Your task to perform on an android device: install app "ZOOM Cloud Meetings" Image 0: 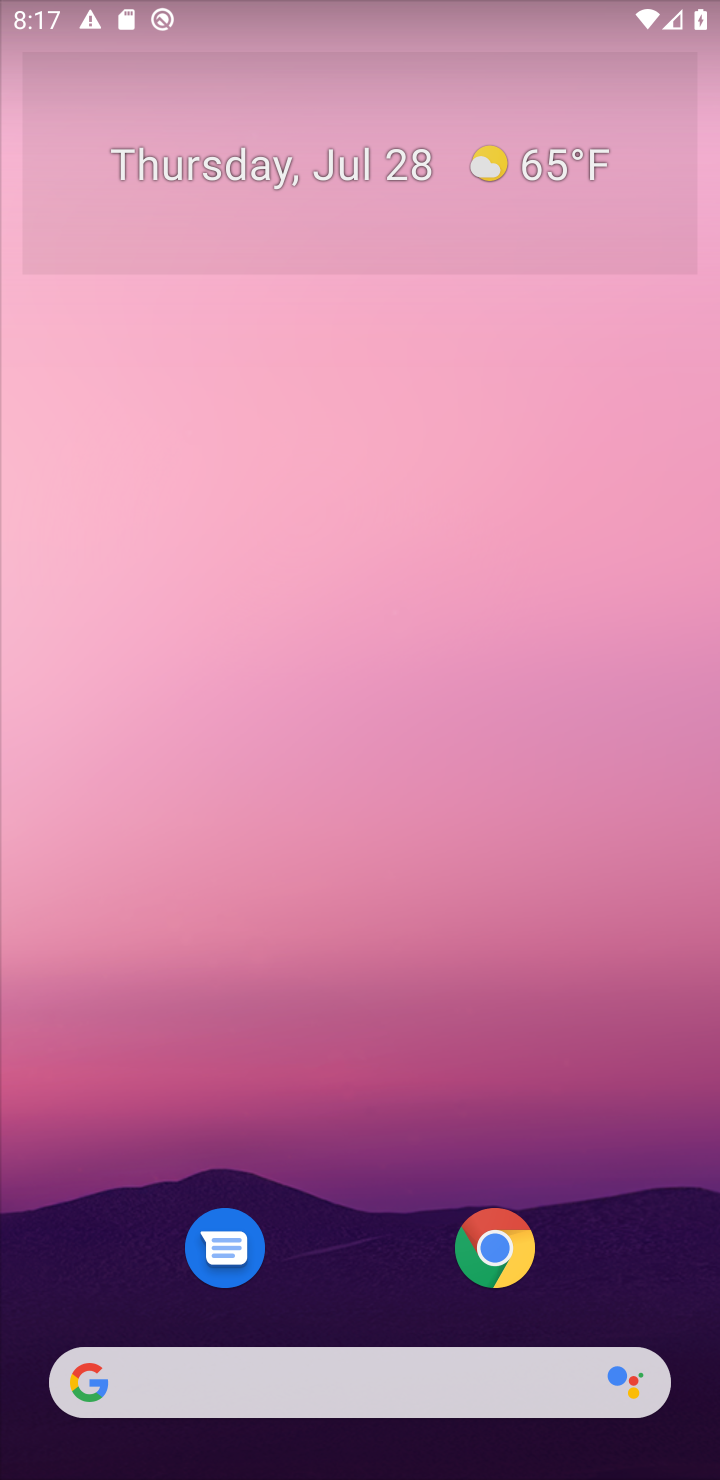
Step 0: drag from (335, 1286) to (232, 168)
Your task to perform on an android device: install app "ZOOM Cloud Meetings" Image 1: 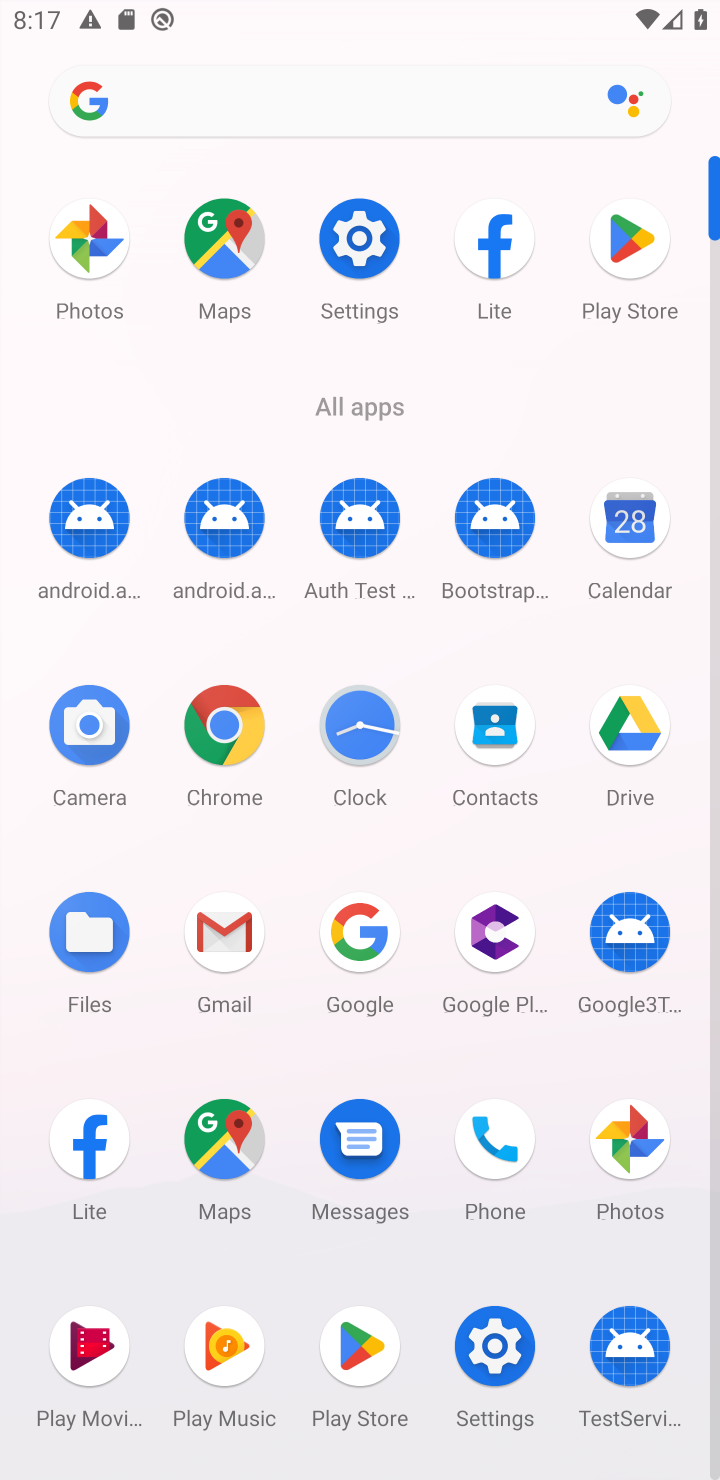
Step 1: click (616, 252)
Your task to perform on an android device: install app "ZOOM Cloud Meetings" Image 2: 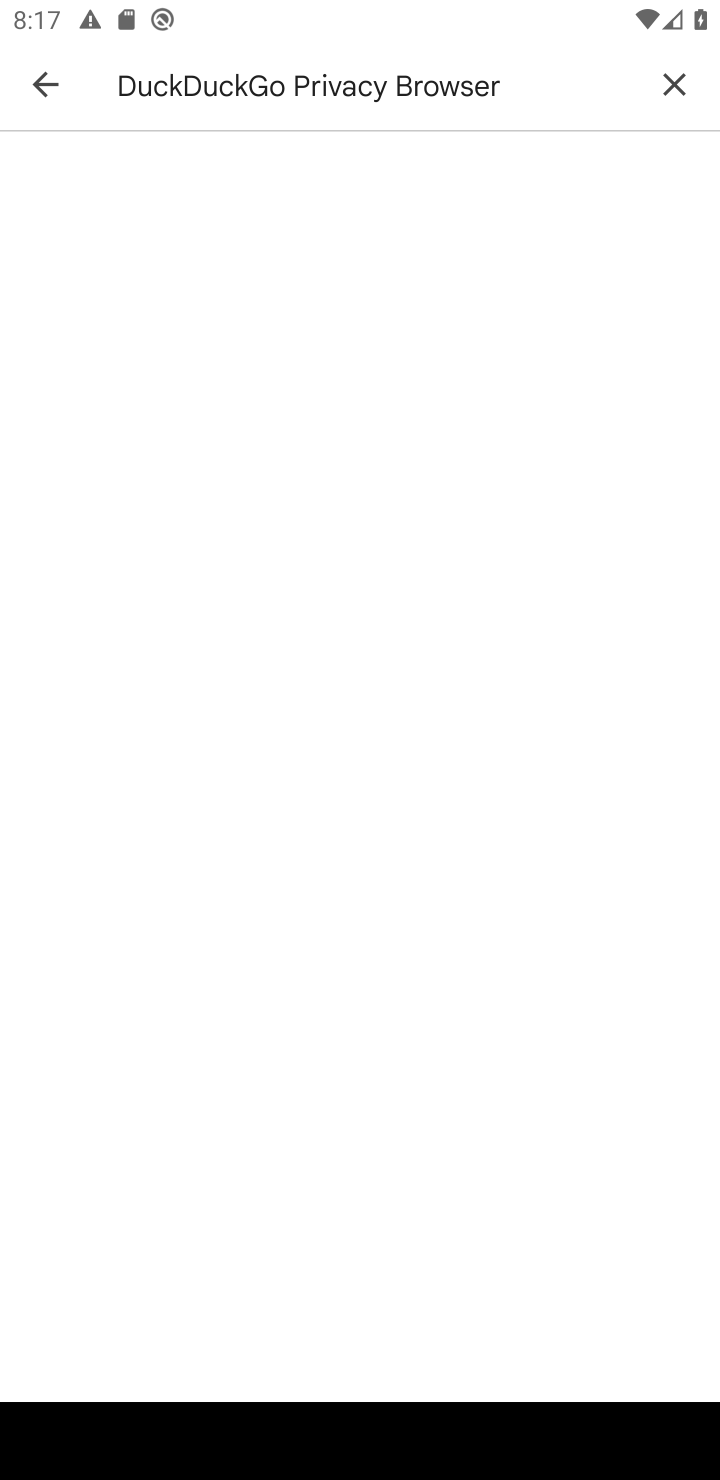
Step 2: click (684, 75)
Your task to perform on an android device: install app "ZOOM Cloud Meetings" Image 3: 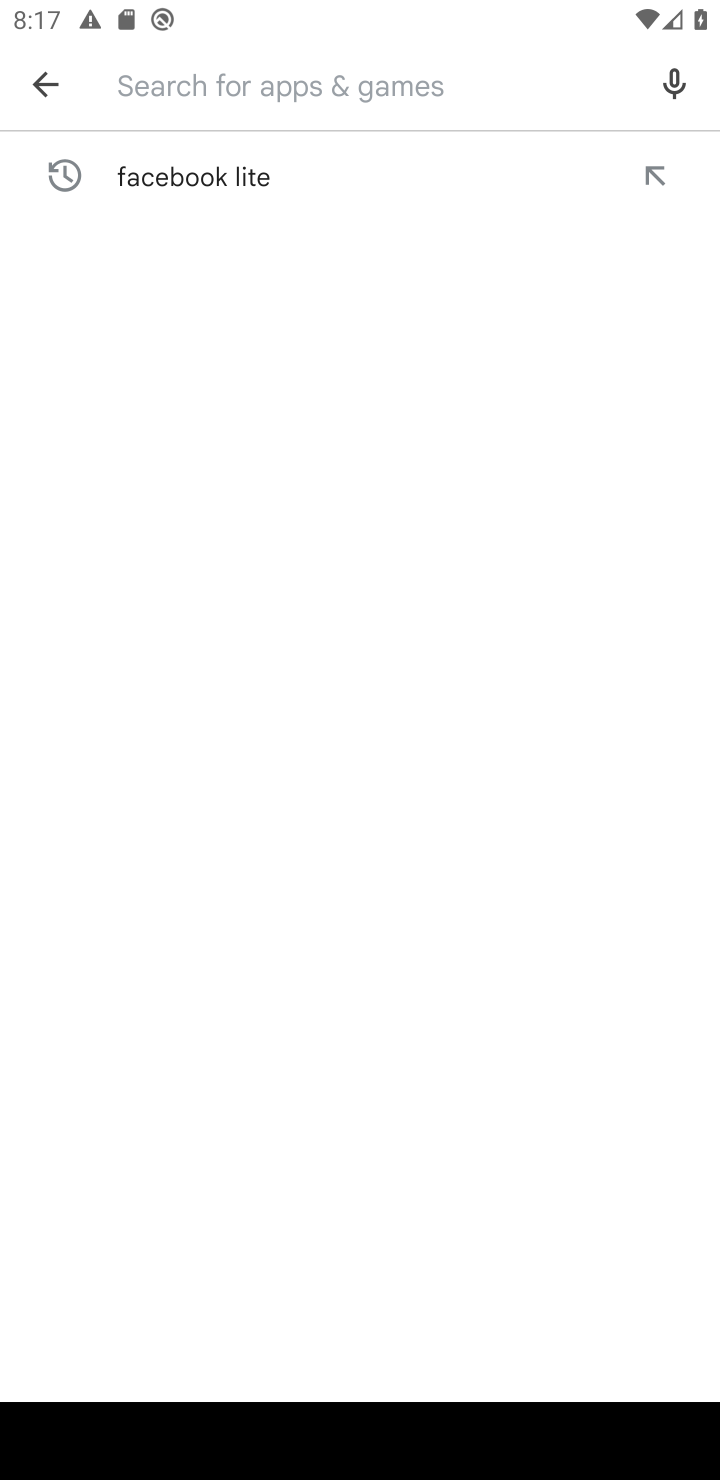
Step 3: click (684, 75)
Your task to perform on an android device: install app "ZOOM Cloud Meetings" Image 4: 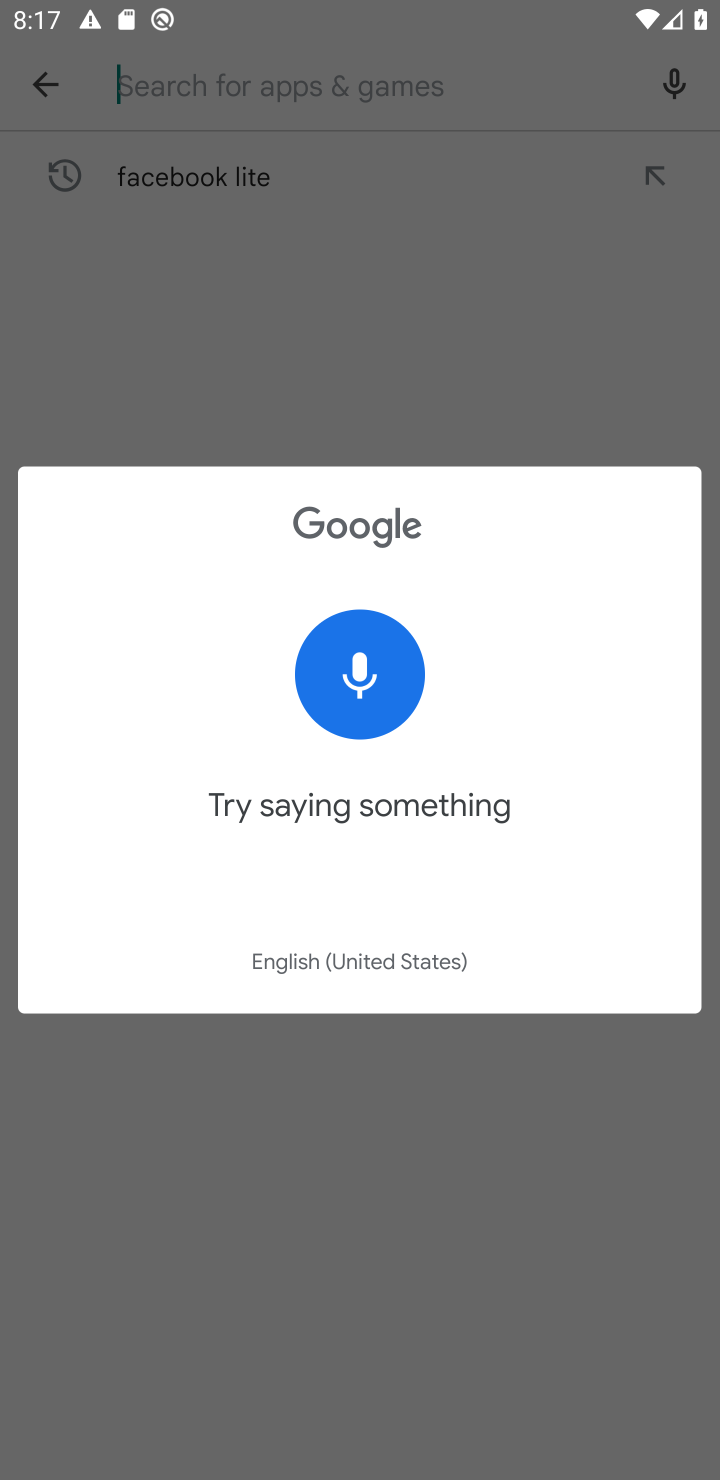
Step 4: click (359, 352)
Your task to perform on an android device: install app "ZOOM Cloud Meetings" Image 5: 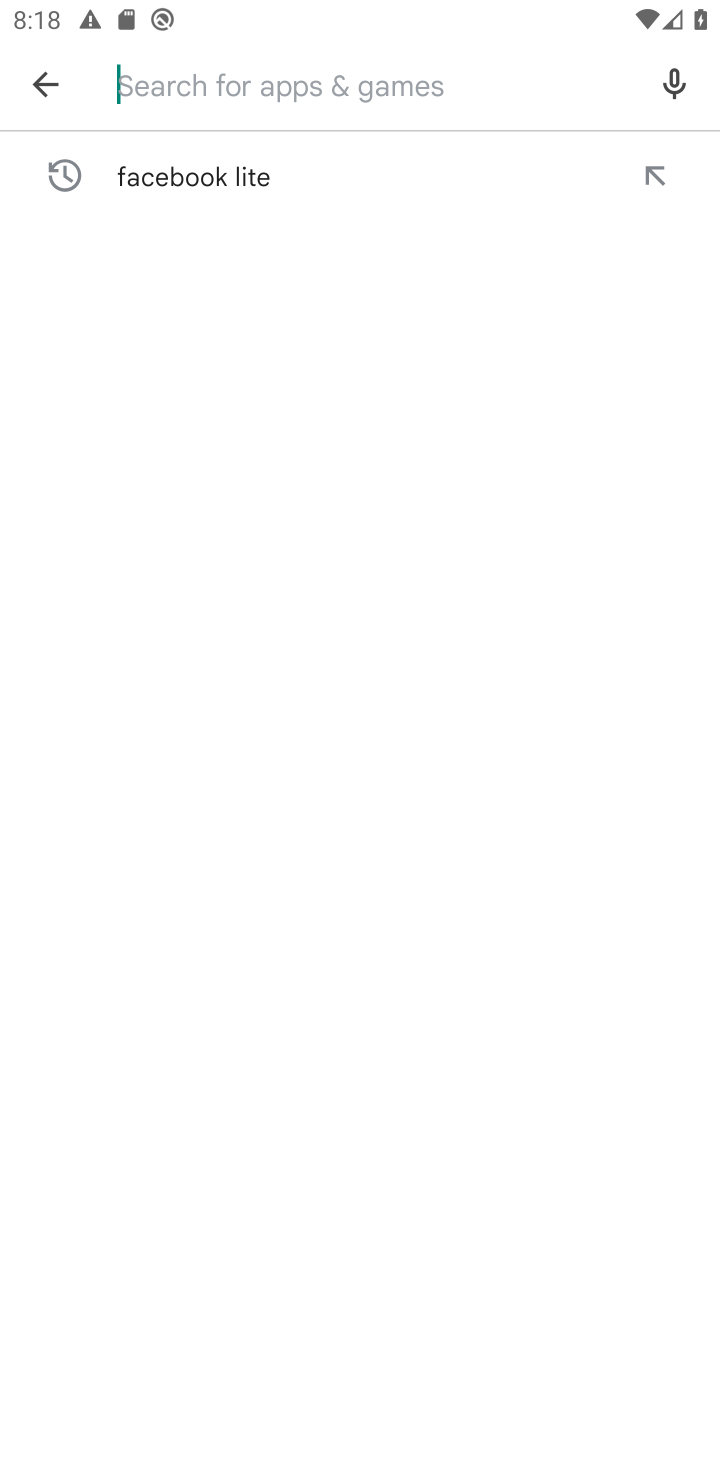
Step 5: type "zoom cloud meeting"
Your task to perform on an android device: install app "ZOOM Cloud Meetings" Image 6: 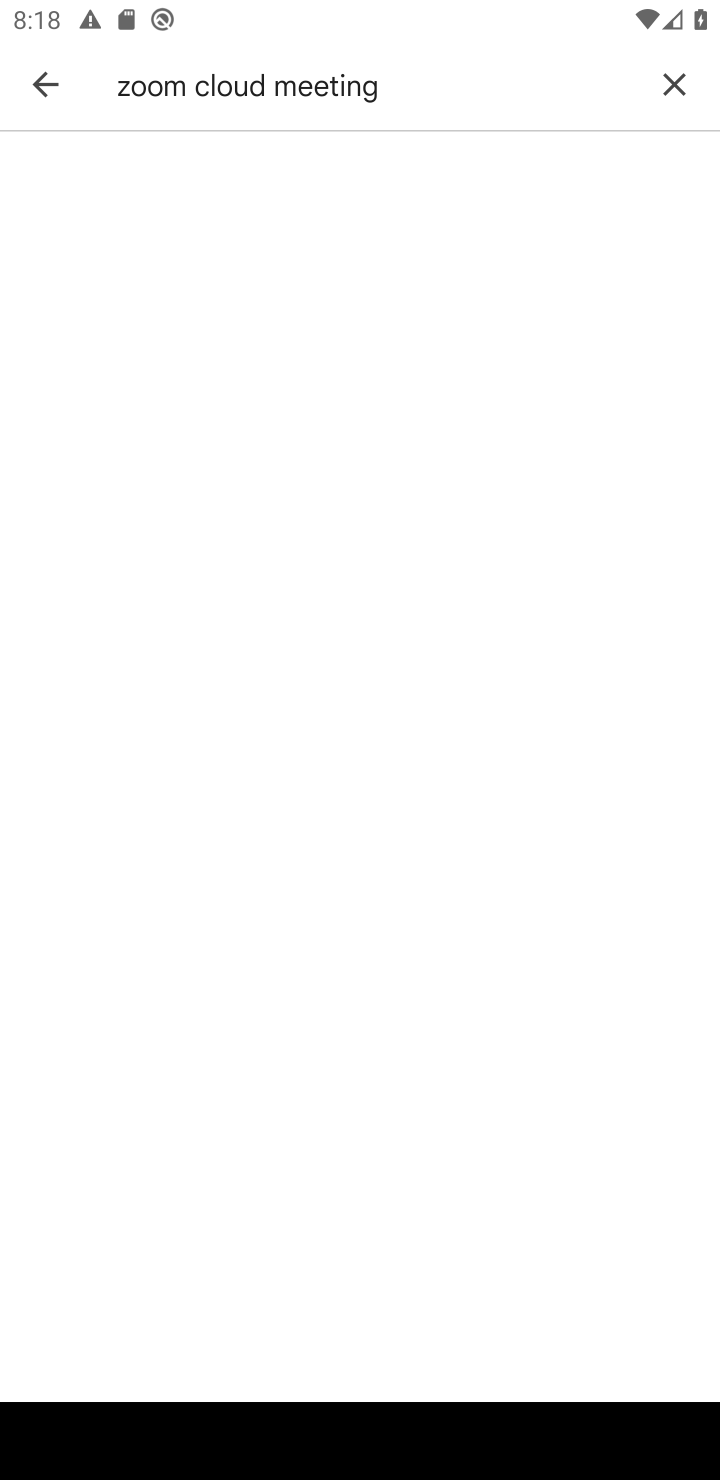
Step 6: type "s"
Your task to perform on an android device: install app "ZOOM Cloud Meetings" Image 7: 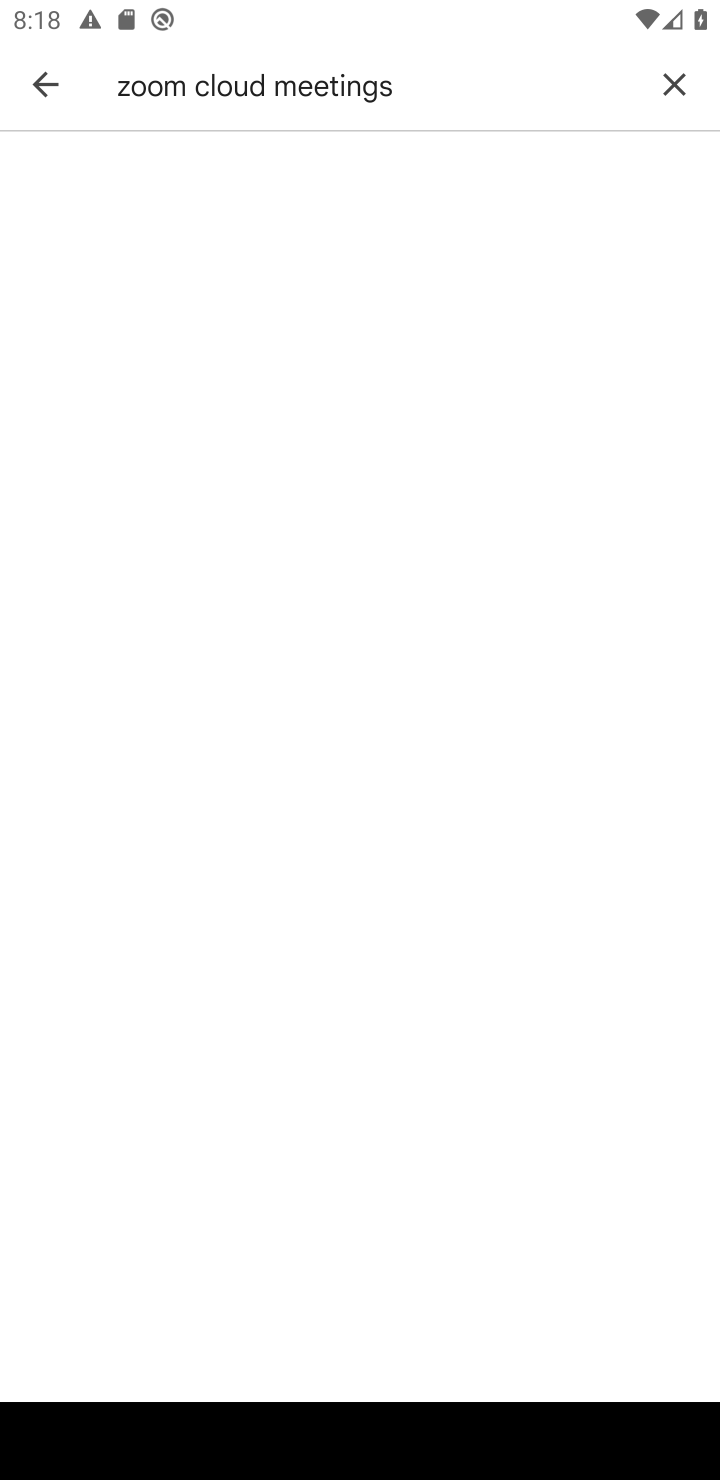
Step 7: click (256, 73)
Your task to perform on an android device: install app "ZOOM Cloud Meetings" Image 8: 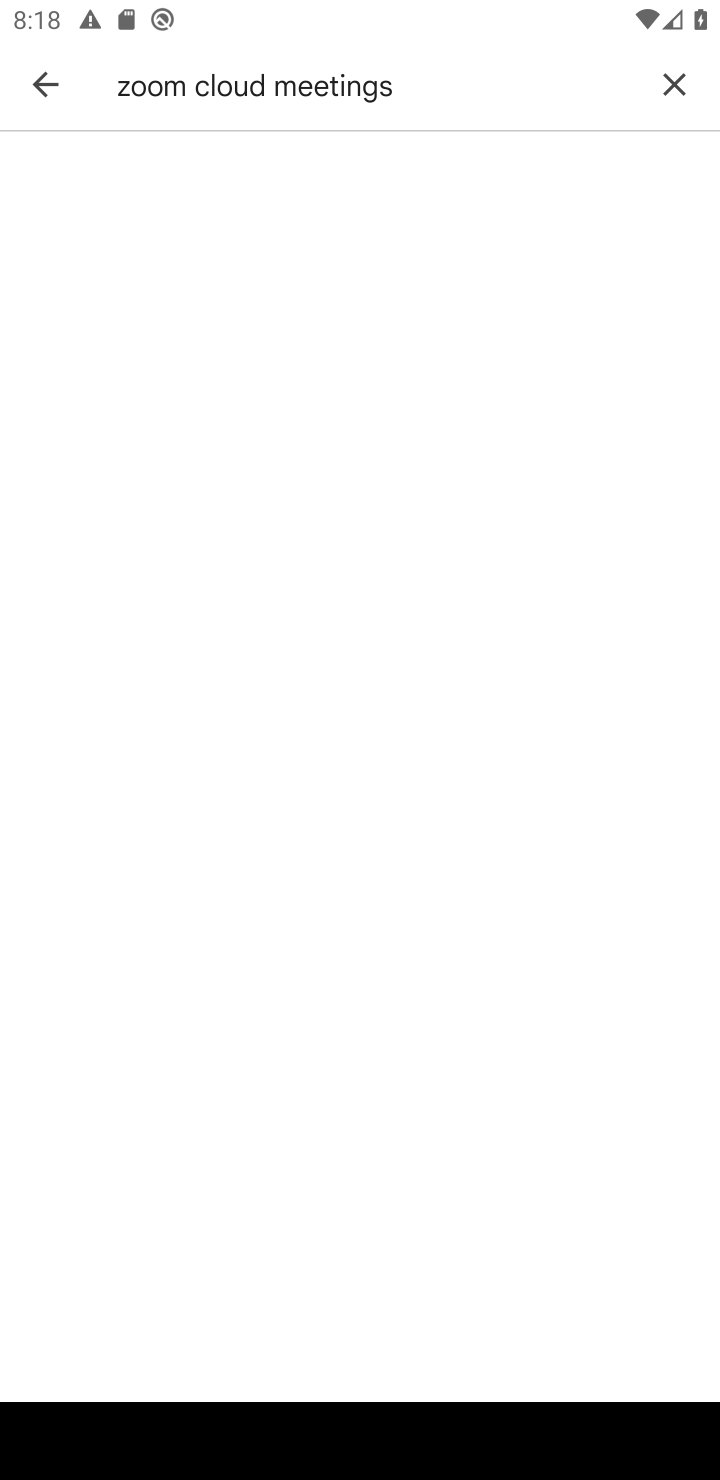
Step 8: click (256, 73)
Your task to perform on an android device: install app "ZOOM Cloud Meetings" Image 9: 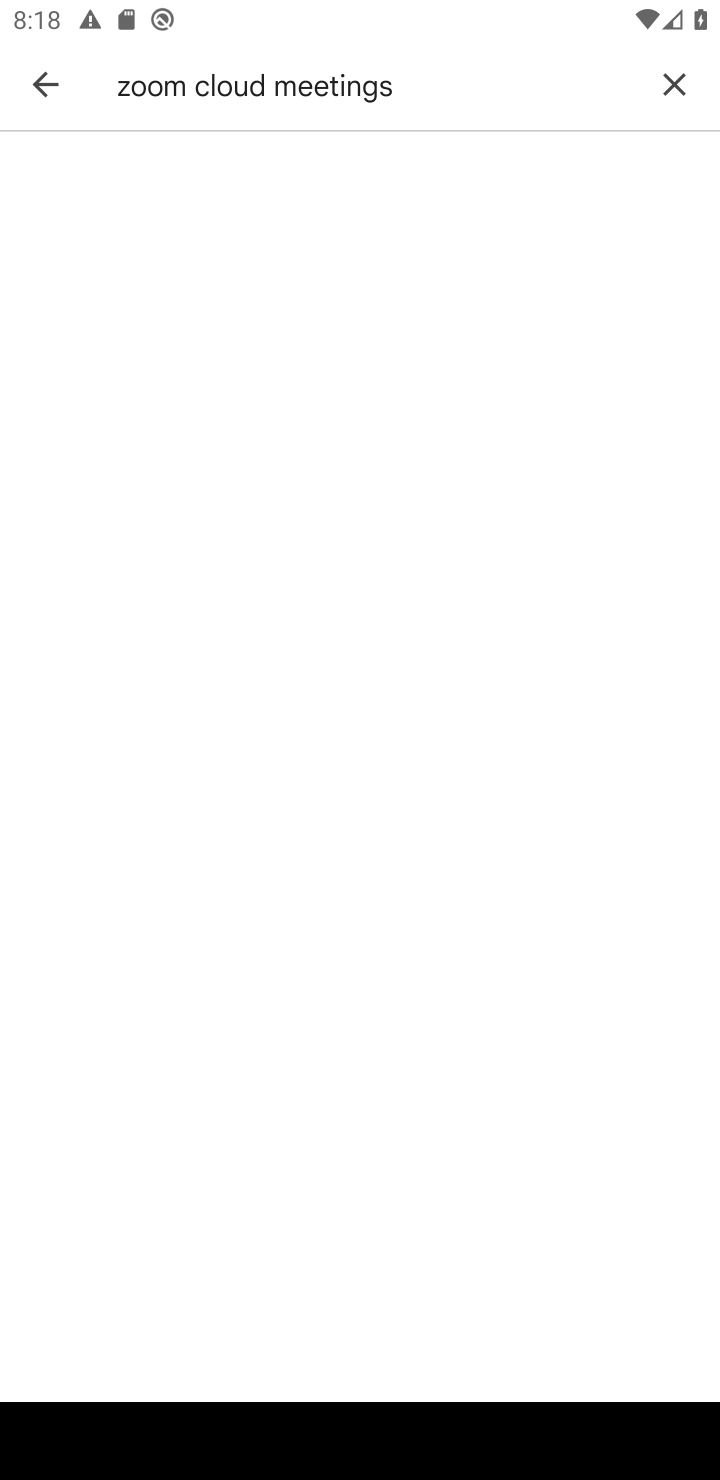
Step 9: task complete